Your task to perform on an android device: toggle translation in the chrome app Image 0: 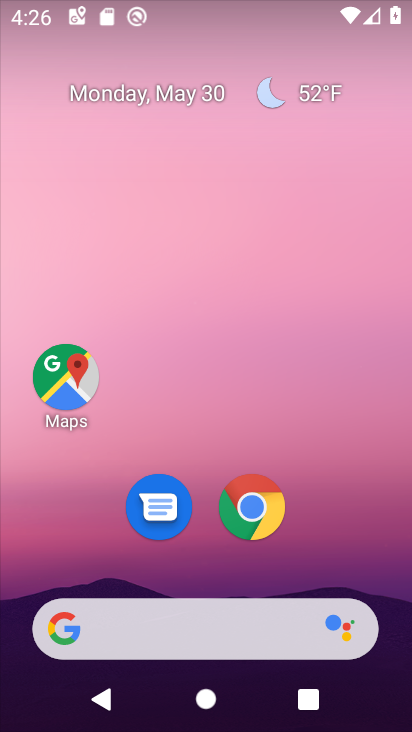
Step 0: click (266, 502)
Your task to perform on an android device: toggle translation in the chrome app Image 1: 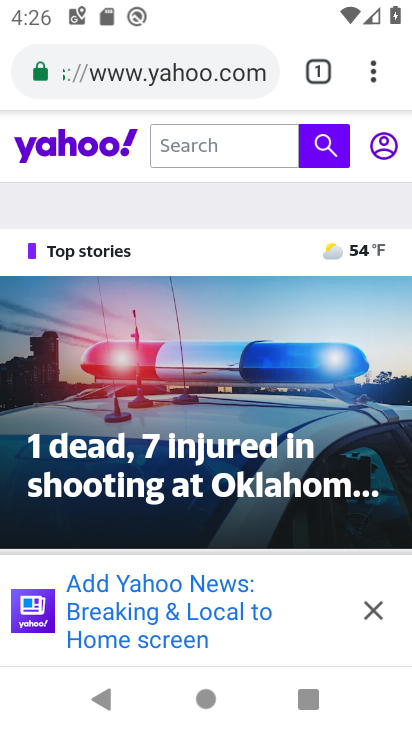
Step 1: click (370, 76)
Your task to perform on an android device: toggle translation in the chrome app Image 2: 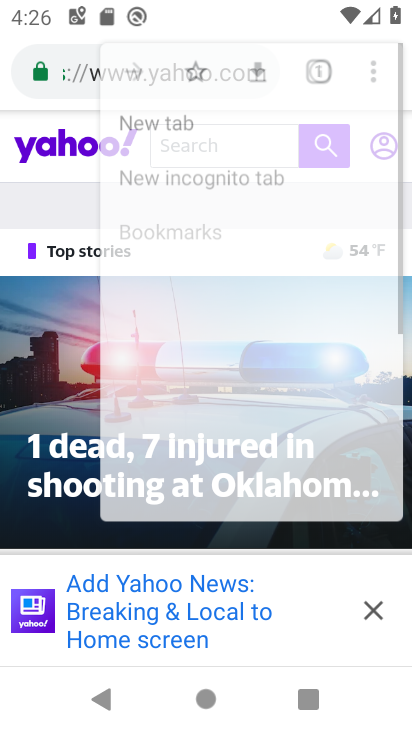
Step 2: drag from (370, 76) to (348, 123)
Your task to perform on an android device: toggle translation in the chrome app Image 3: 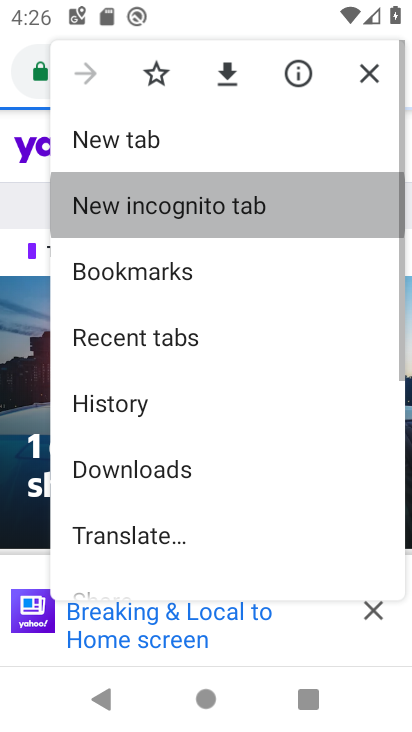
Step 3: click (350, 117)
Your task to perform on an android device: toggle translation in the chrome app Image 4: 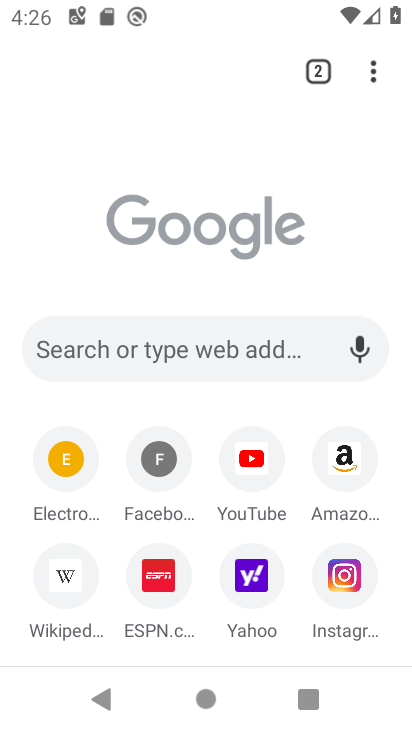
Step 4: drag from (380, 66) to (171, 507)
Your task to perform on an android device: toggle translation in the chrome app Image 5: 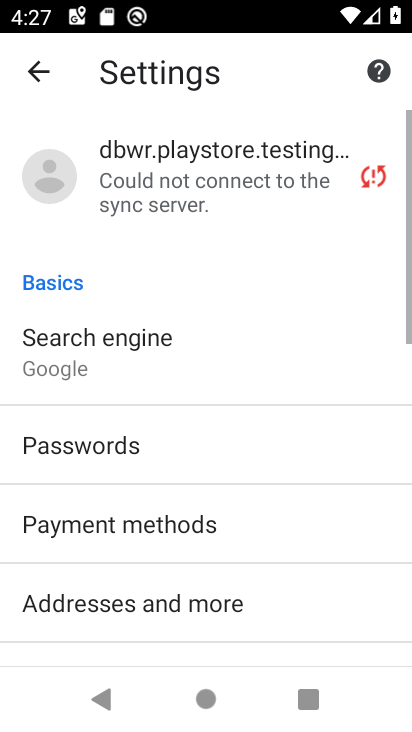
Step 5: drag from (282, 570) to (284, 290)
Your task to perform on an android device: toggle translation in the chrome app Image 6: 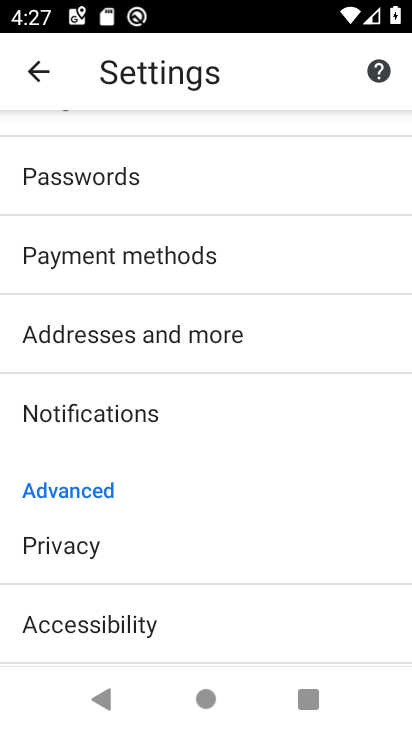
Step 6: drag from (227, 639) to (266, 357)
Your task to perform on an android device: toggle translation in the chrome app Image 7: 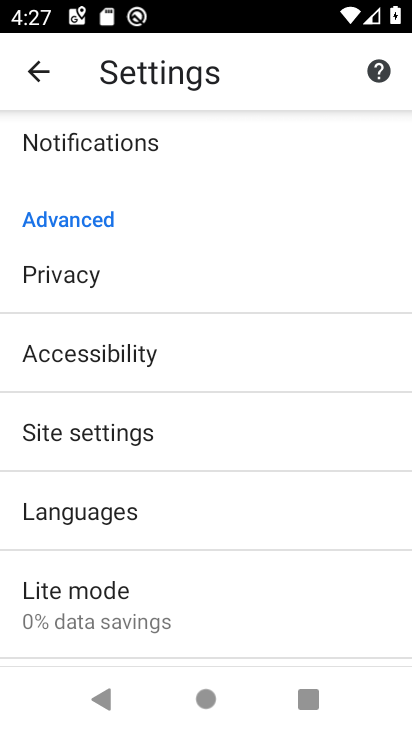
Step 7: click (172, 536)
Your task to perform on an android device: toggle translation in the chrome app Image 8: 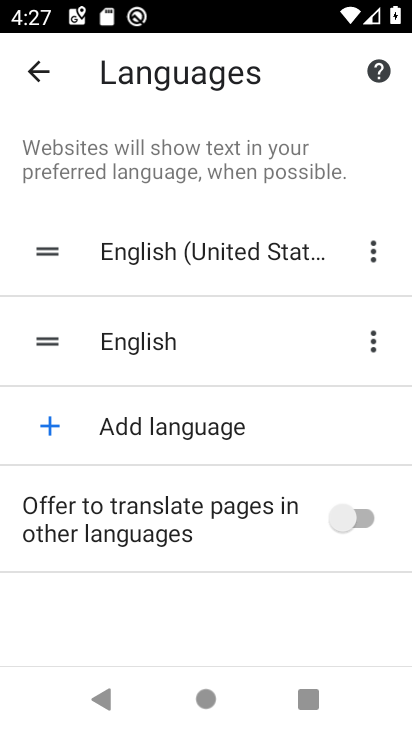
Step 8: click (363, 512)
Your task to perform on an android device: toggle translation in the chrome app Image 9: 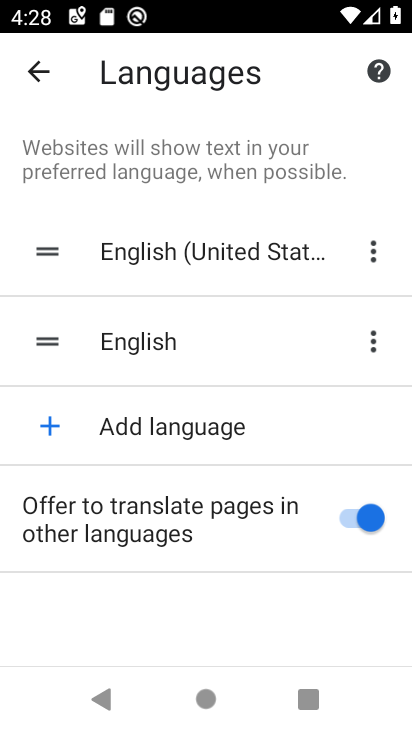
Step 9: task complete